Your task to perform on an android device: Turn on the flashlight Image 0: 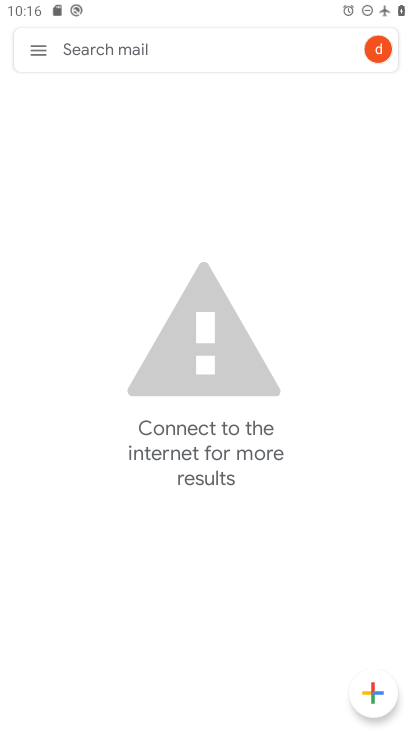
Step 0: press home button
Your task to perform on an android device: Turn on the flashlight Image 1: 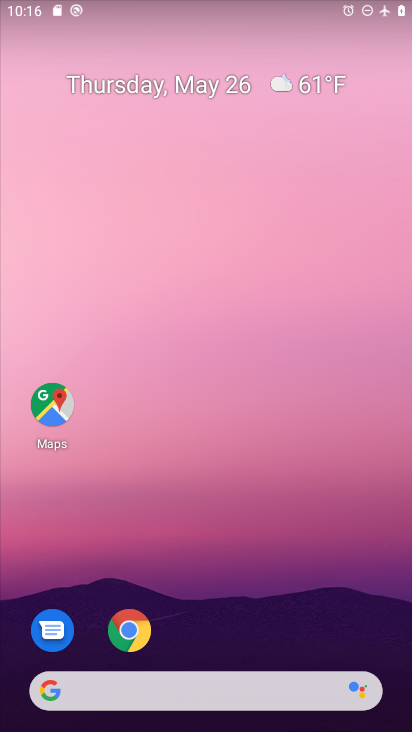
Step 1: drag from (225, 657) to (182, 105)
Your task to perform on an android device: Turn on the flashlight Image 2: 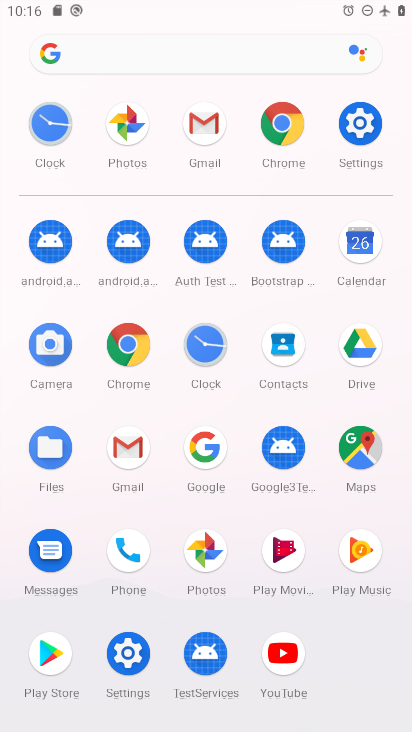
Step 2: click (350, 124)
Your task to perform on an android device: Turn on the flashlight Image 3: 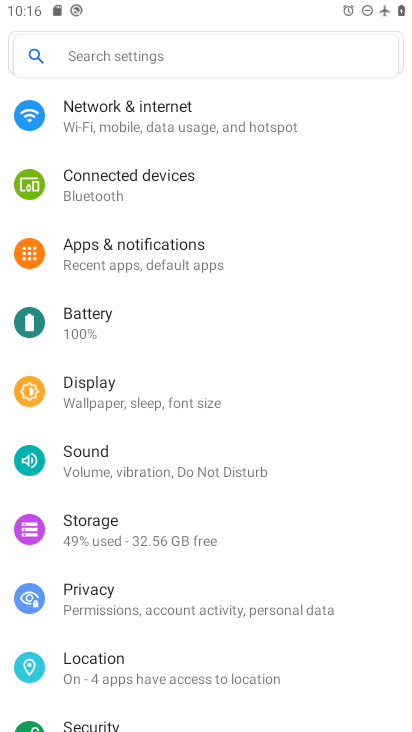
Step 3: click (171, 50)
Your task to perform on an android device: Turn on the flashlight Image 4: 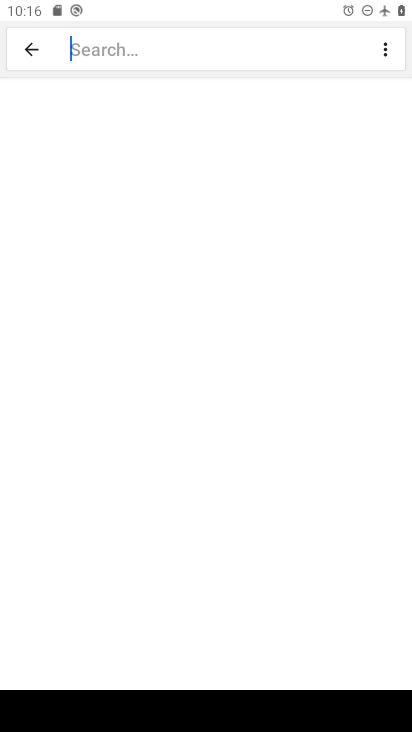
Step 4: type "flashlight"
Your task to perform on an android device: Turn on the flashlight Image 5: 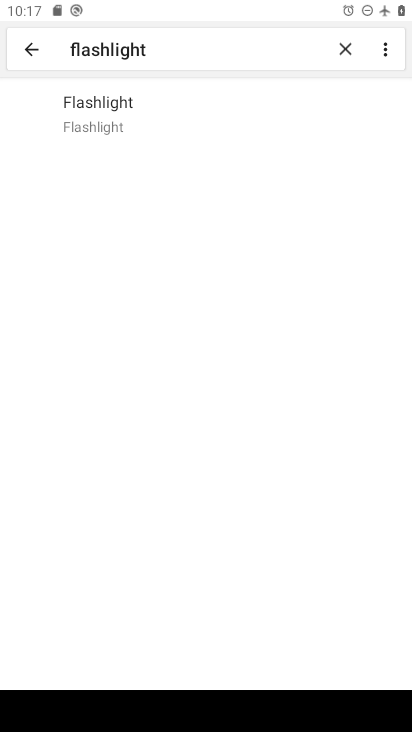
Step 5: task complete